Your task to perform on an android device: Open the calendar app, open the side menu, and click the "Day" option Image 0: 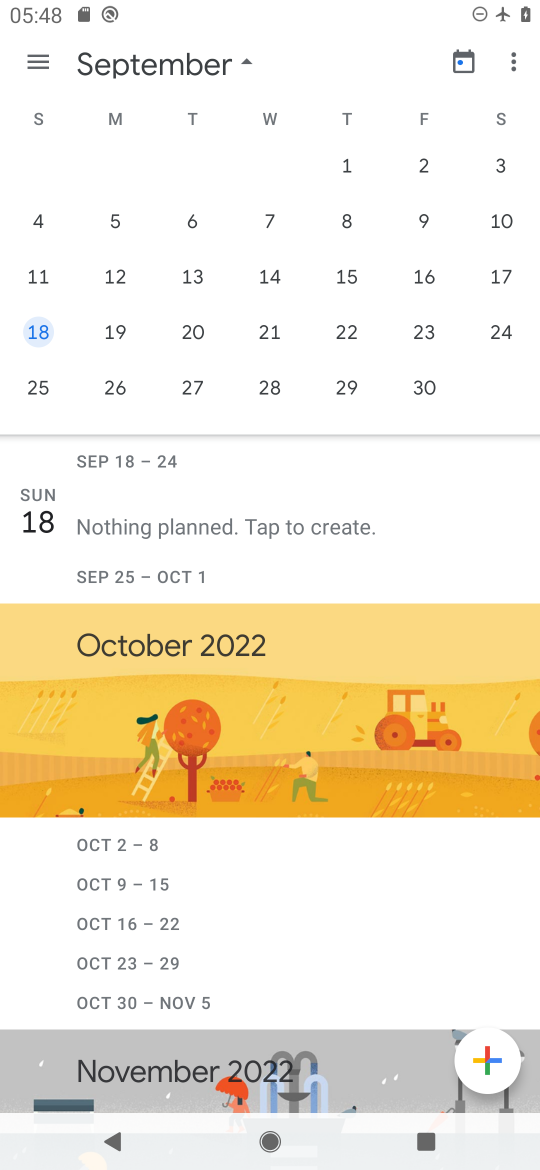
Step 0: click (42, 65)
Your task to perform on an android device: Open the calendar app, open the side menu, and click the "Day" option Image 1: 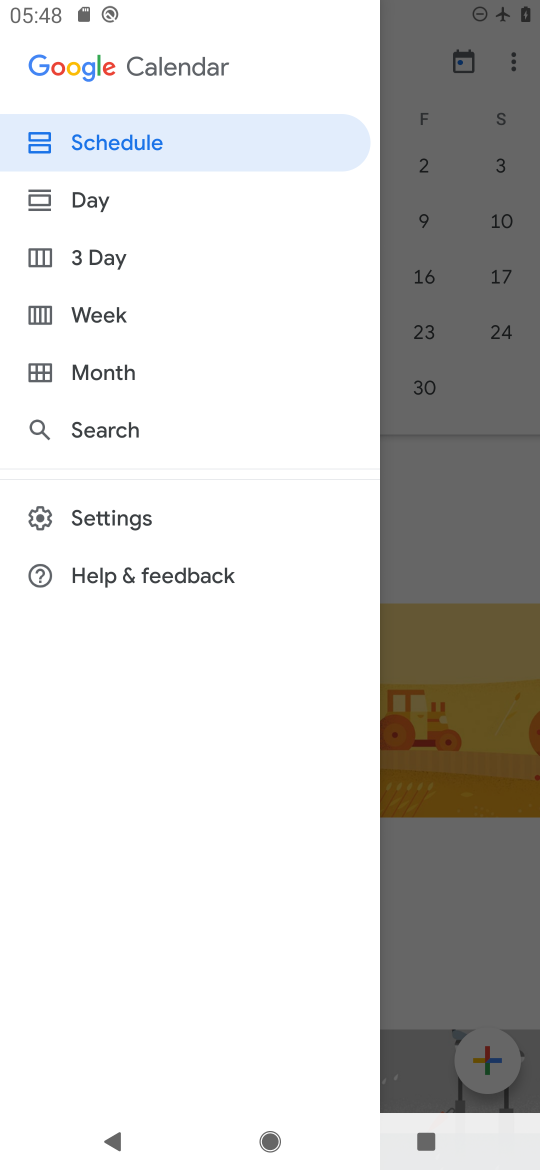
Step 1: click (126, 189)
Your task to perform on an android device: Open the calendar app, open the side menu, and click the "Day" option Image 2: 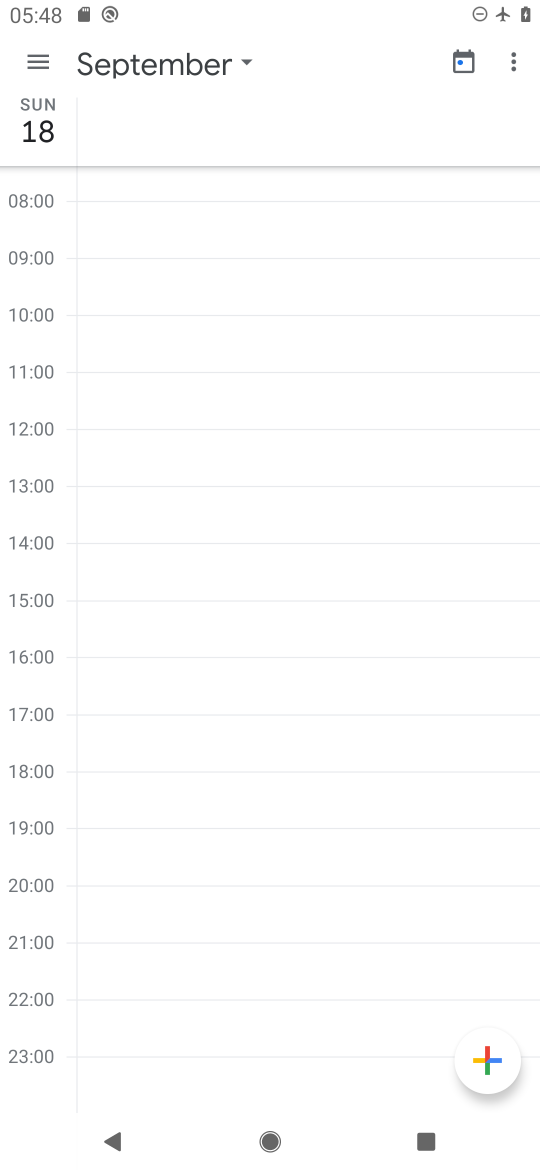
Step 2: task complete